Your task to perform on an android device: open chrome and create a bookmark for the current page Image 0: 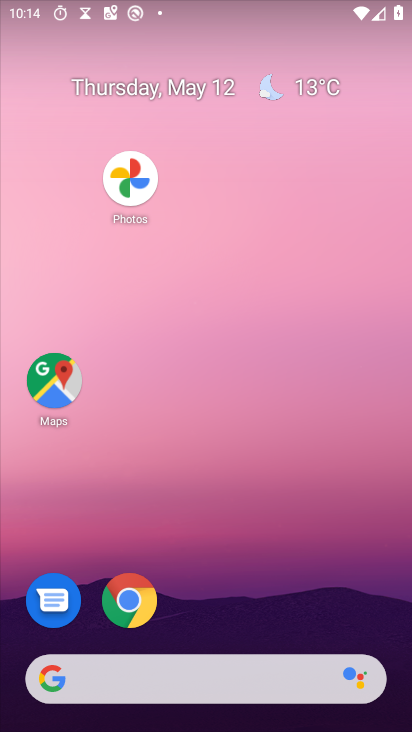
Step 0: drag from (366, 611) to (245, 212)
Your task to perform on an android device: open chrome and create a bookmark for the current page Image 1: 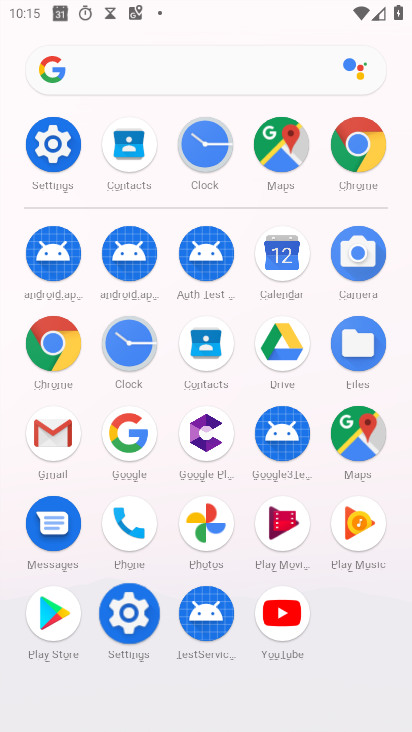
Step 1: click (47, 135)
Your task to perform on an android device: open chrome and create a bookmark for the current page Image 2: 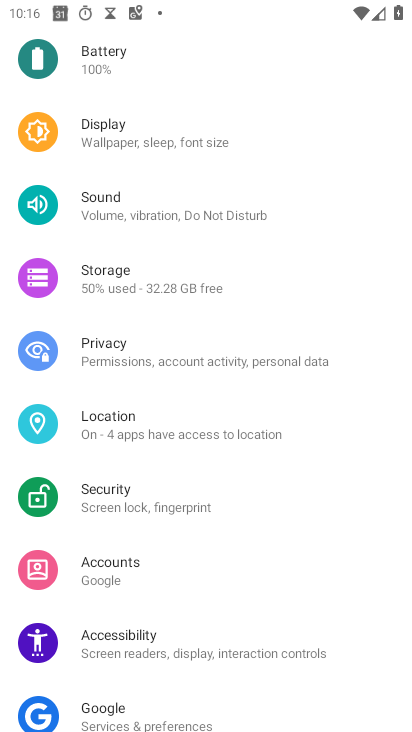
Step 2: drag from (146, 526) to (94, 138)
Your task to perform on an android device: open chrome and create a bookmark for the current page Image 3: 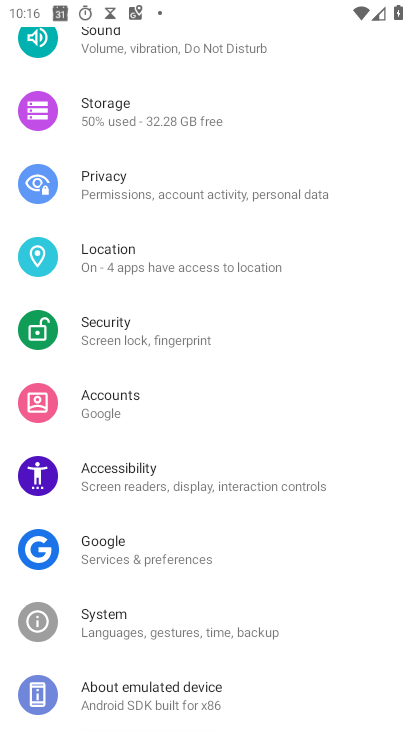
Step 3: drag from (199, 354) to (109, 0)
Your task to perform on an android device: open chrome and create a bookmark for the current page Image 4: 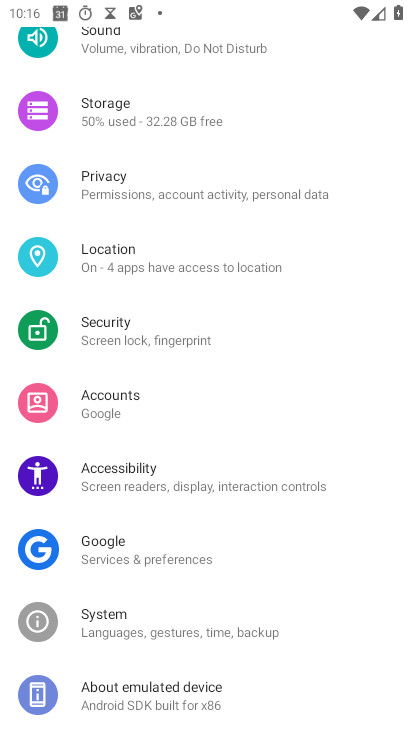
Step 4: press back button
Your task to perform on an android device: open chrome and create a bookmark for the current page Image 5: 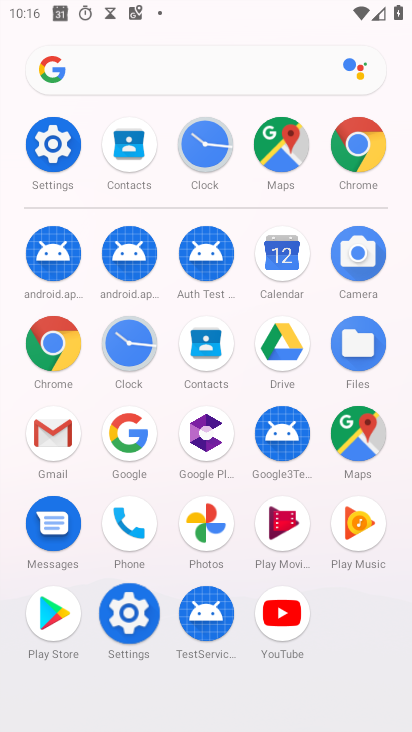
Step 5: click (357, 143)
Your task to perform on an android device: open chrome and create a bookmark for the current page Image 6: 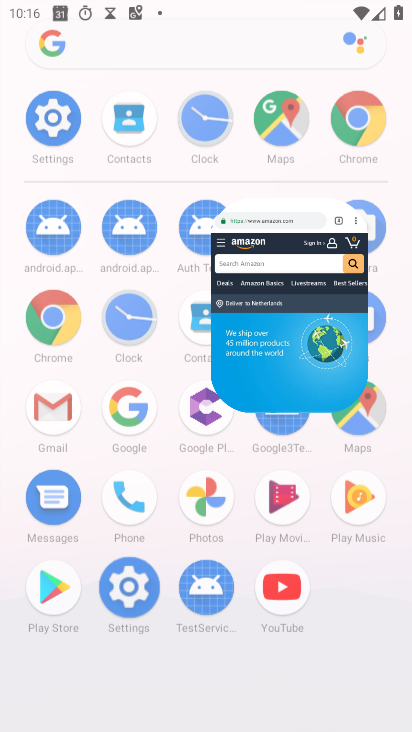
Step 6: click (357, 143)
Your task to perform on an android device: open chrome and create a bookmark for the current page Image 7: 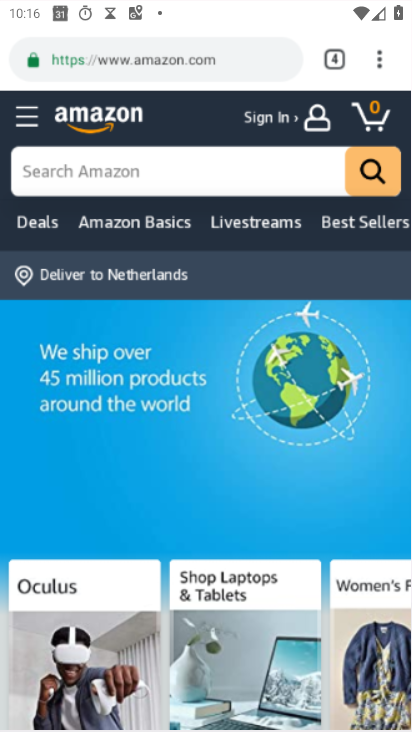
Step 7: click (357, 143)
Your task to perform on an android device: open chrome and create a bookmark for the current page Image 8: 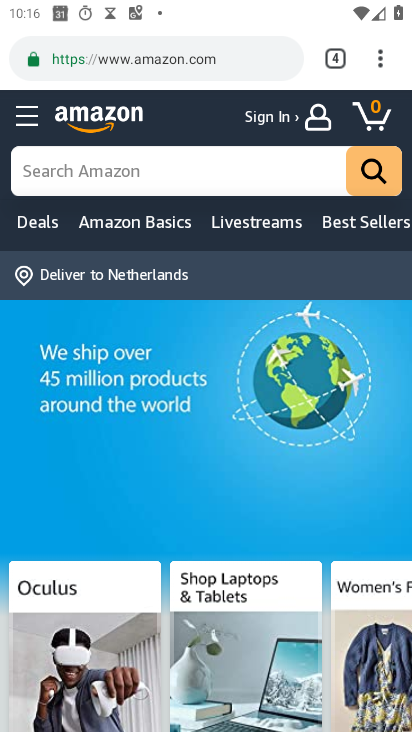
Step 8: drag from (380, 62) to (176, 222)
Your task to perform on an android device: open chrome and create a bookmark for the current page Image 9: 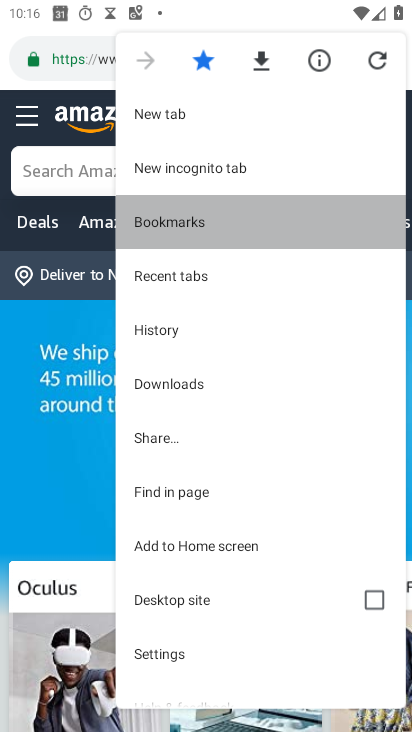
Step 9: click (176, 222)
Your task to perform on an android device: open chrome and create a bookmark for the current page Image 10: 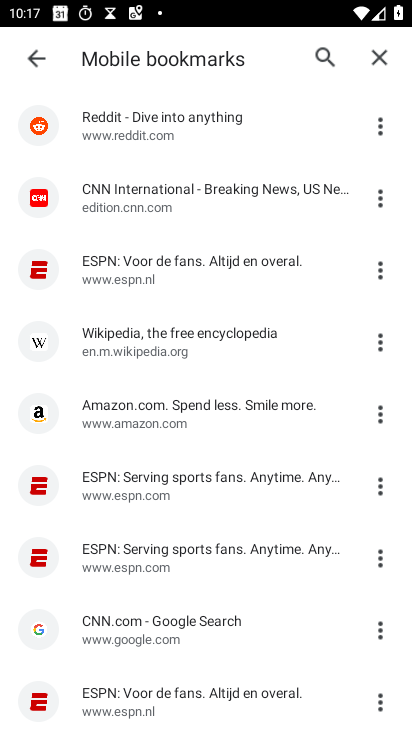
Step 10: task complete